Your task to perform on an android device: Go to Amazon Image 0: 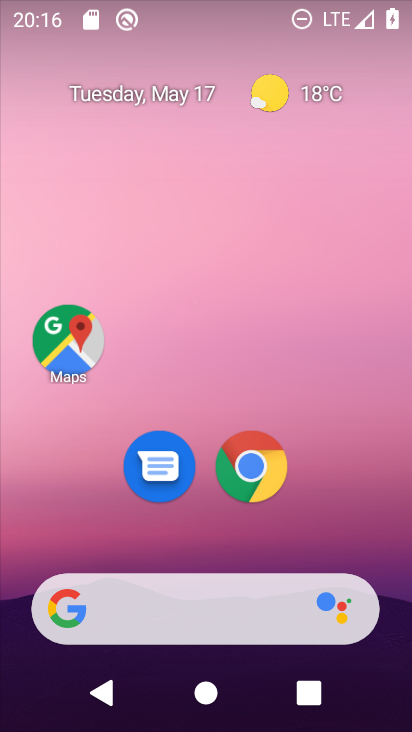
Step 0: press home button
Your task to perform on an android device: Go to Amazon Image 1: 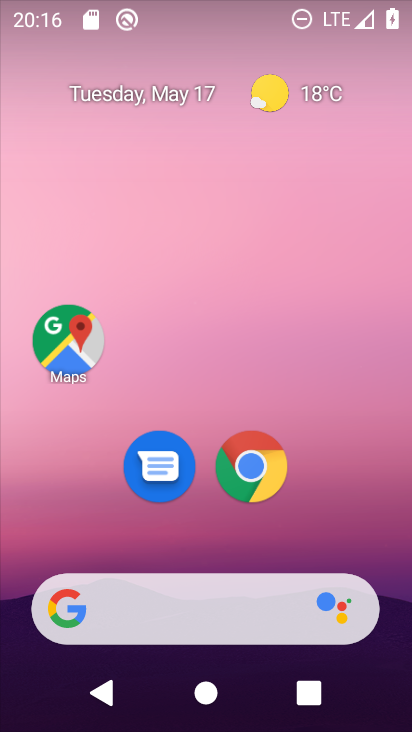
Step 1: click (256, 476)
Your task to perform on an android device: Go to Amazon Image 2: 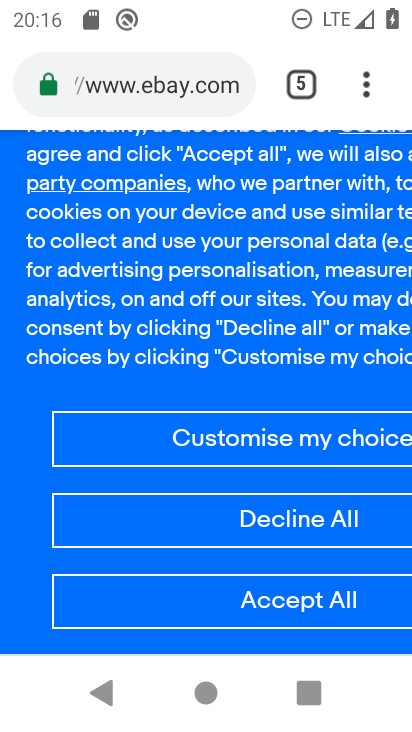
Step 2: drag from (369, 90) to (241, 159)
Your task to perform on an android device: Go to Amazon Image 3: 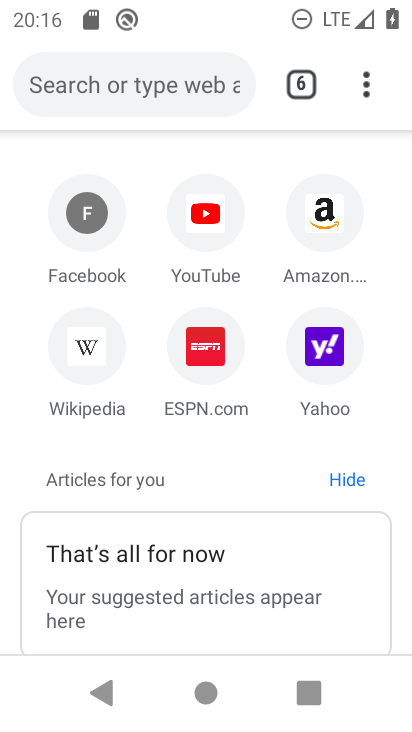
Step 3: click (329, 227)
Your task to perform on an android device: Go to Amazon Image 4: 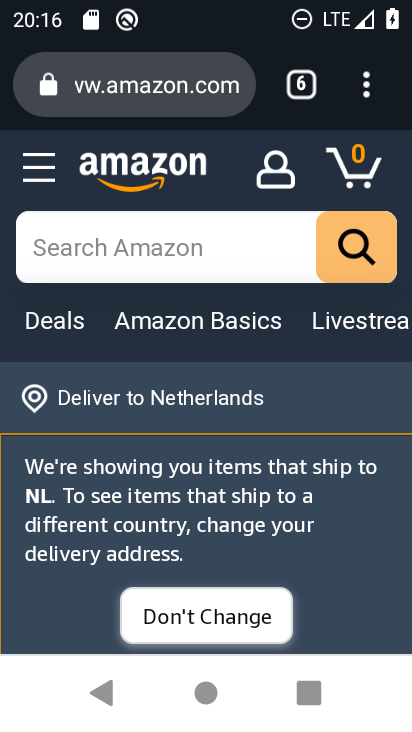
Step 4: task complete